Your task to perform on an android device: Go to accessibility settings Image 0: 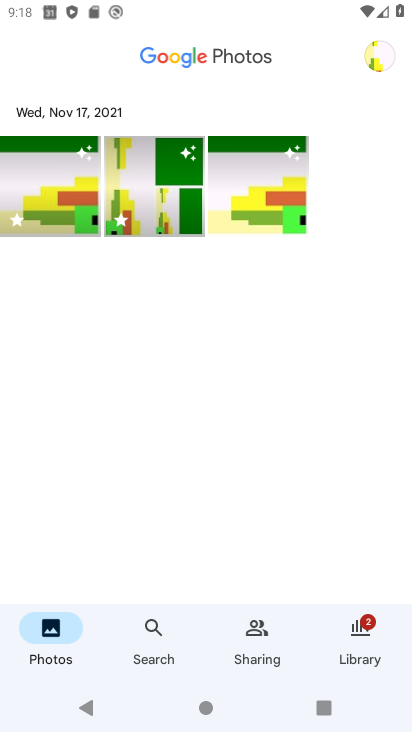
Step 0: press home button
Your task to perform on an android device: Go to accessibility settings Image 1: 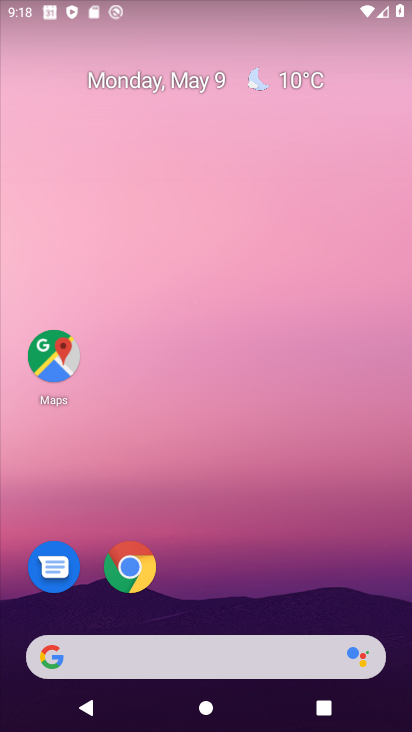
Step 1: drag from (291, 544) to (294, 46)
Your task to perform on an android device: Go to accessibility settings Image 2: 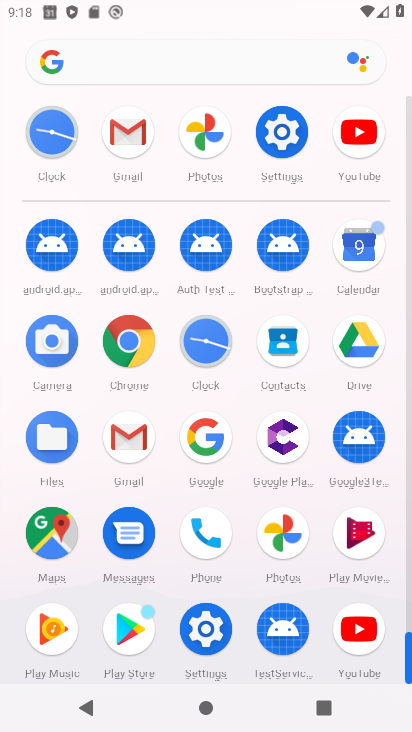
Step 2: click (284, 140)
Your task to perform on an android device: Go to accessibility settings Image 3: 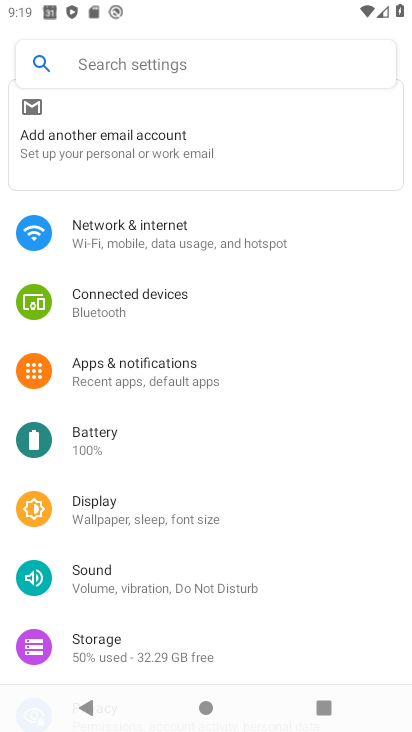
Step 3: drag from (204, 581) to (201, 93)
Your task to perform on an android device: Go to accessibility settings Image 4: 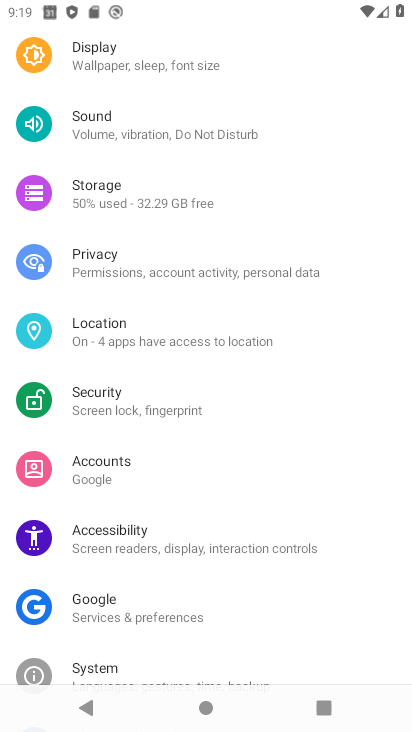
Step 4: click (189, 532)
Your task to perform on an android device: Go to accessibility settings Image 5: 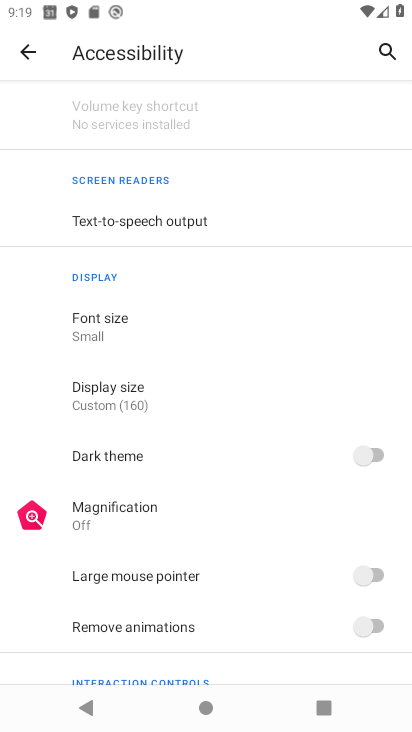
Step 5: task complete